Your task to perform on an android device: snooze an email in the gmail app Image 0: 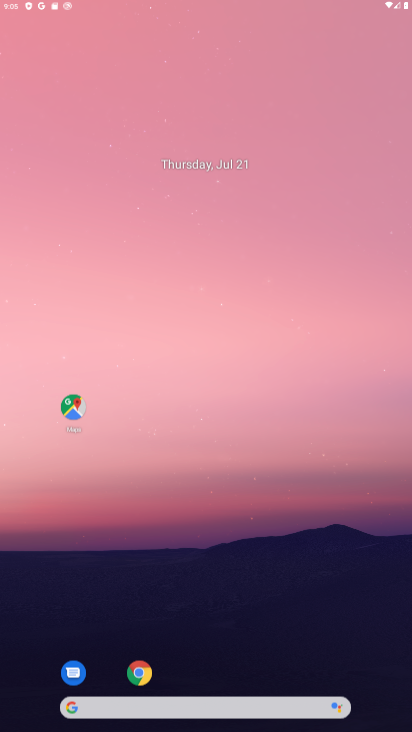
Step 0: press home button
Your task to perform on an android device: snooze an email in the gmail app Image 1: 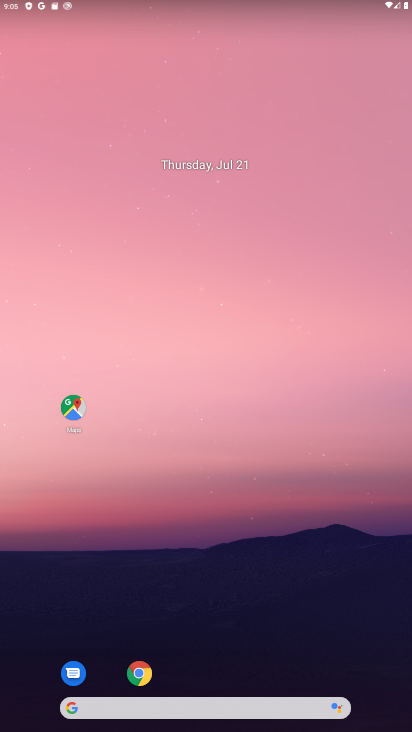
Step 1: drag from (211, 675) to (214, 77)
Your task to perform on an android device: snooze an email in the gmail app Image 2: 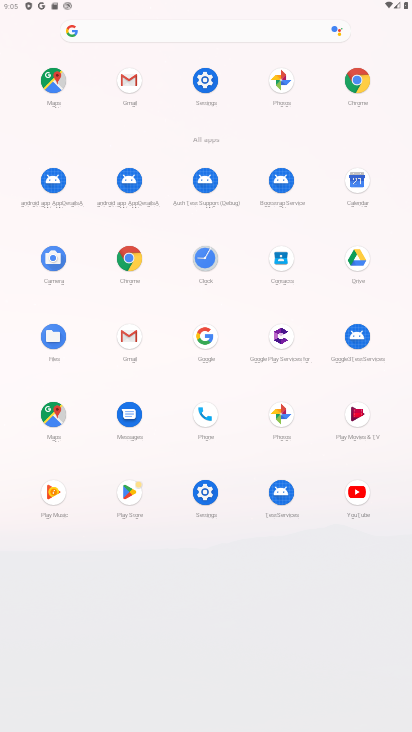
Step 2: click (127, 74)
Your task to perform on an android device: snooze an email in the gmail app Image 3: 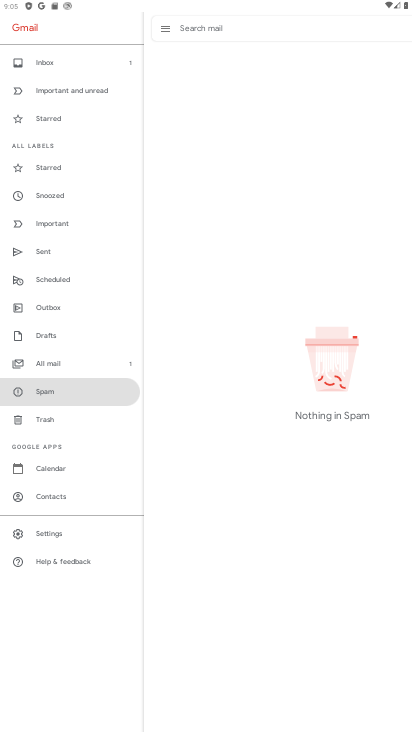
Step 3: click (43, 359)
Your task to perform on an android device: snooze an email in the gmail app Image 4: 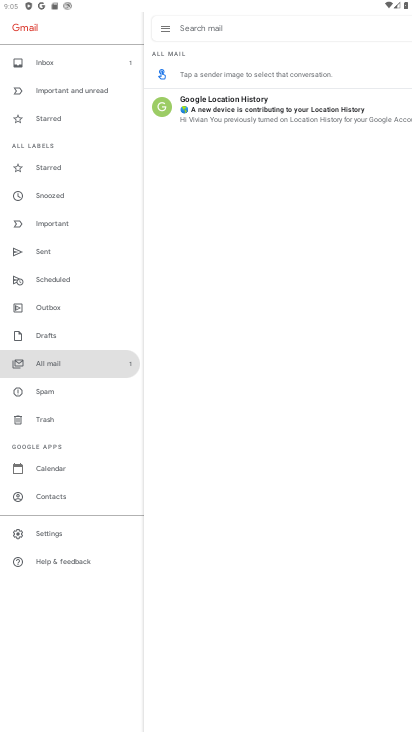
Step 4: click (163, 110)
Your task to perform on an android device: snooze an email in the gmail app Image 5: 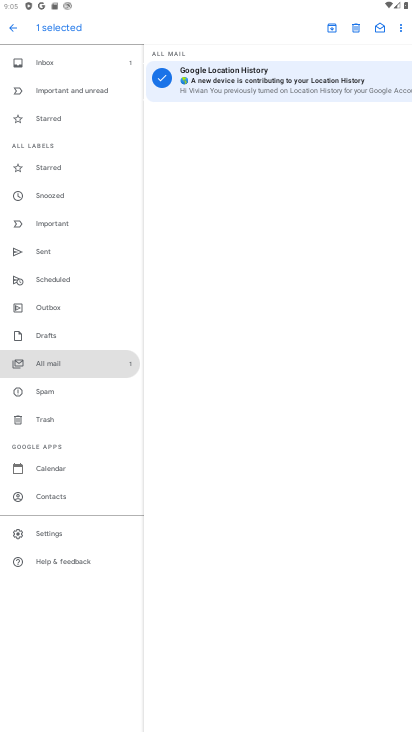
Step 5: click (402, 27)
Your task to perform on an android device: snooze an email in the gmail app Image 6: 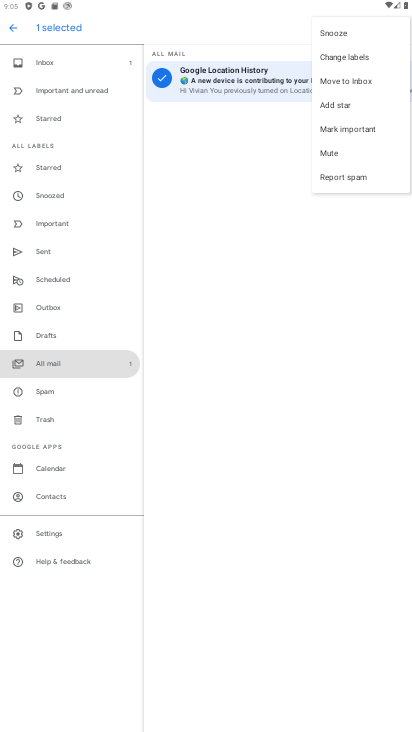
Step 6: click (346, 31)
Your task to perform on an android device: snooze an email in the gmail app Image 7: 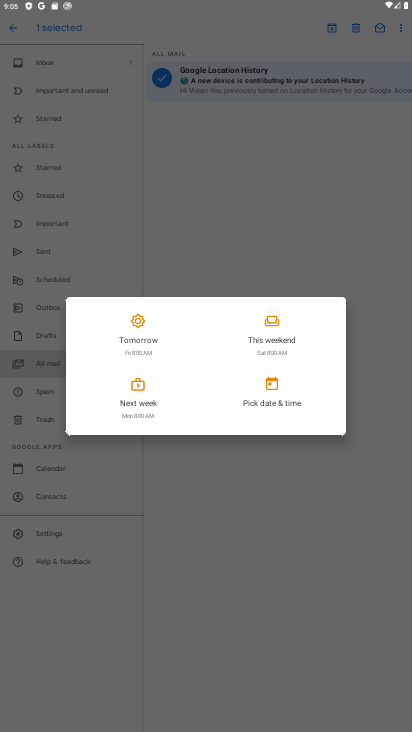
Step 7: click (139, 392)
Your task to perform on an android device: snooze an email in the gmail app Image 8: 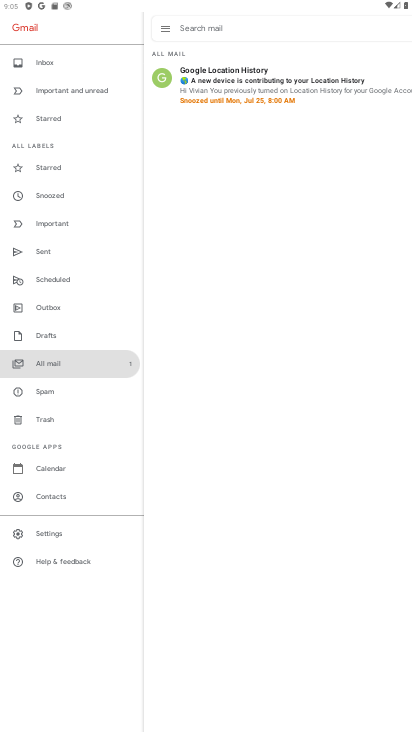
Step 8: task complete